Your task to perform on an android device: Open display settings Image 0: 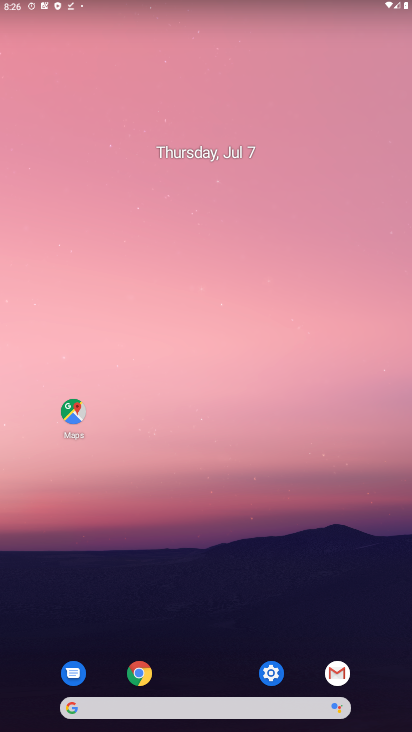
Step 0: click (264, 681)
Your task to perform on an android device: Open display settings Image 1: 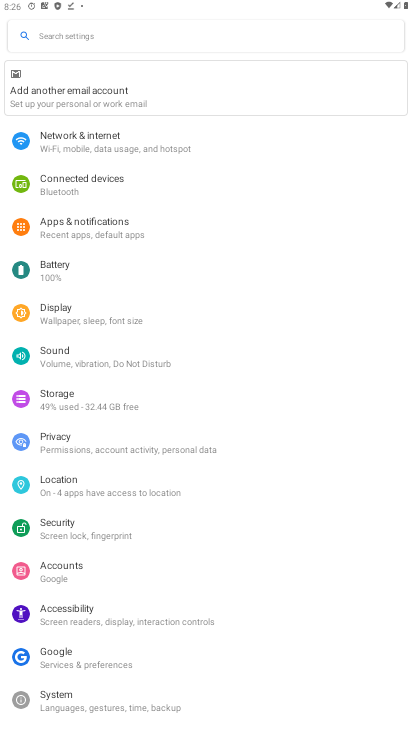
Step 1: click (86, 320)
Your task to perform on an android device: Open display settings Image 2: 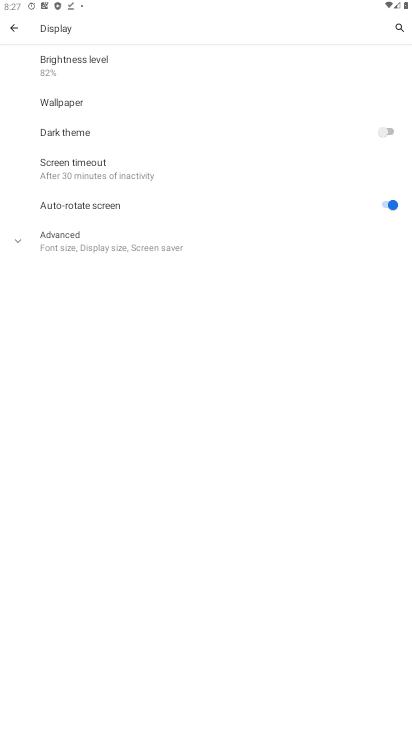
Step 2: task complete